Your task to perform on an android device: Open the stopwatch Image 0: 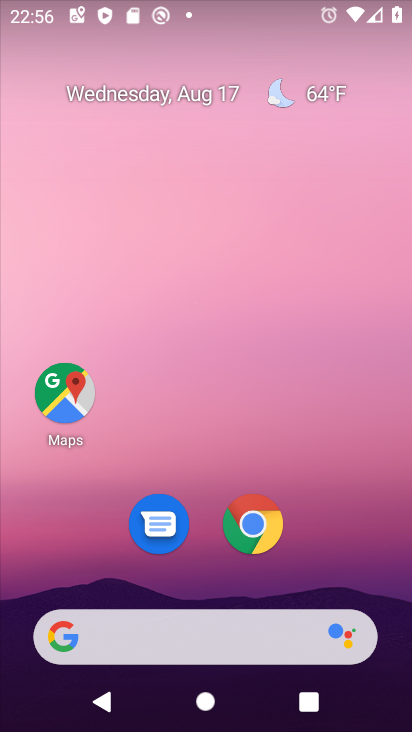
Step 0: drag from (335, 480) to (354, 24)
Your task to perform on an android device: Open the stopwatch Image 1: 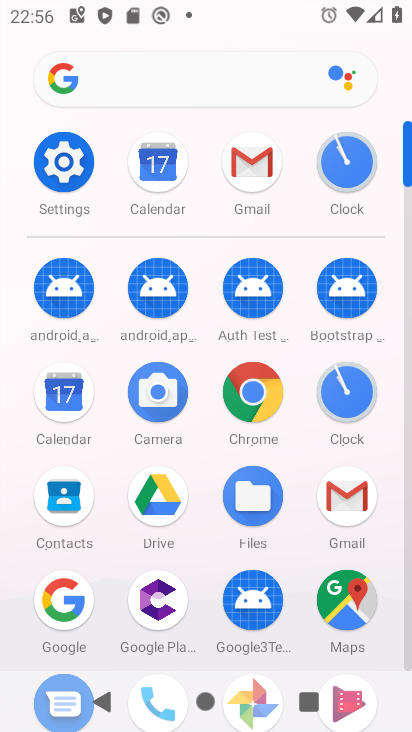
Step 1: click (349, 169)
Your task to perform on an android device: Open the stopwatch Image 2: 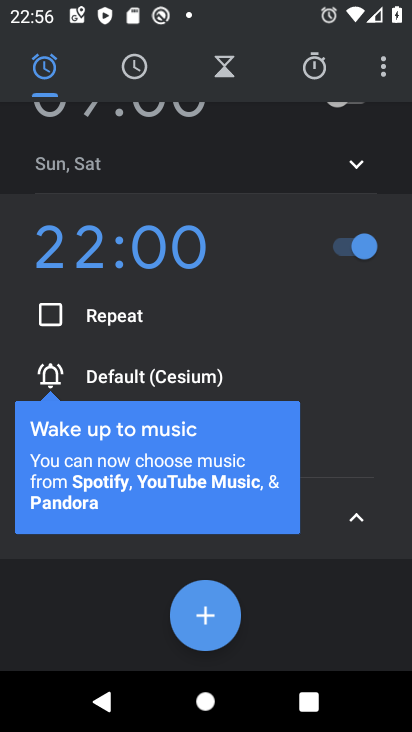
Step 2: click (324, 70)
Your task to perform on an android device: Open the stopwatch Image 3: 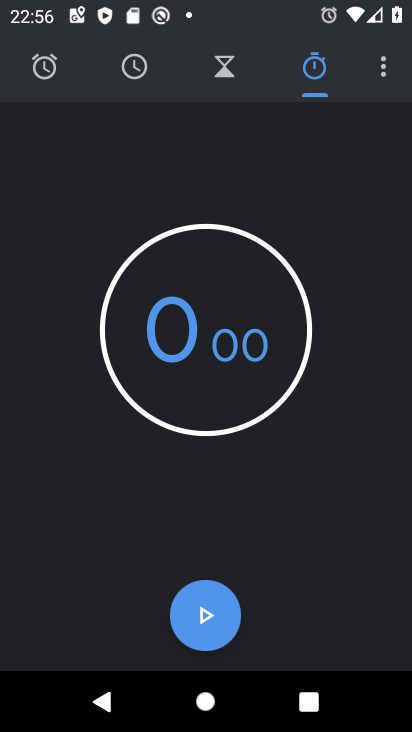
Step 3: task complete